Your task to perform on an android device: Play the last video I watched on Youtube Image 0: 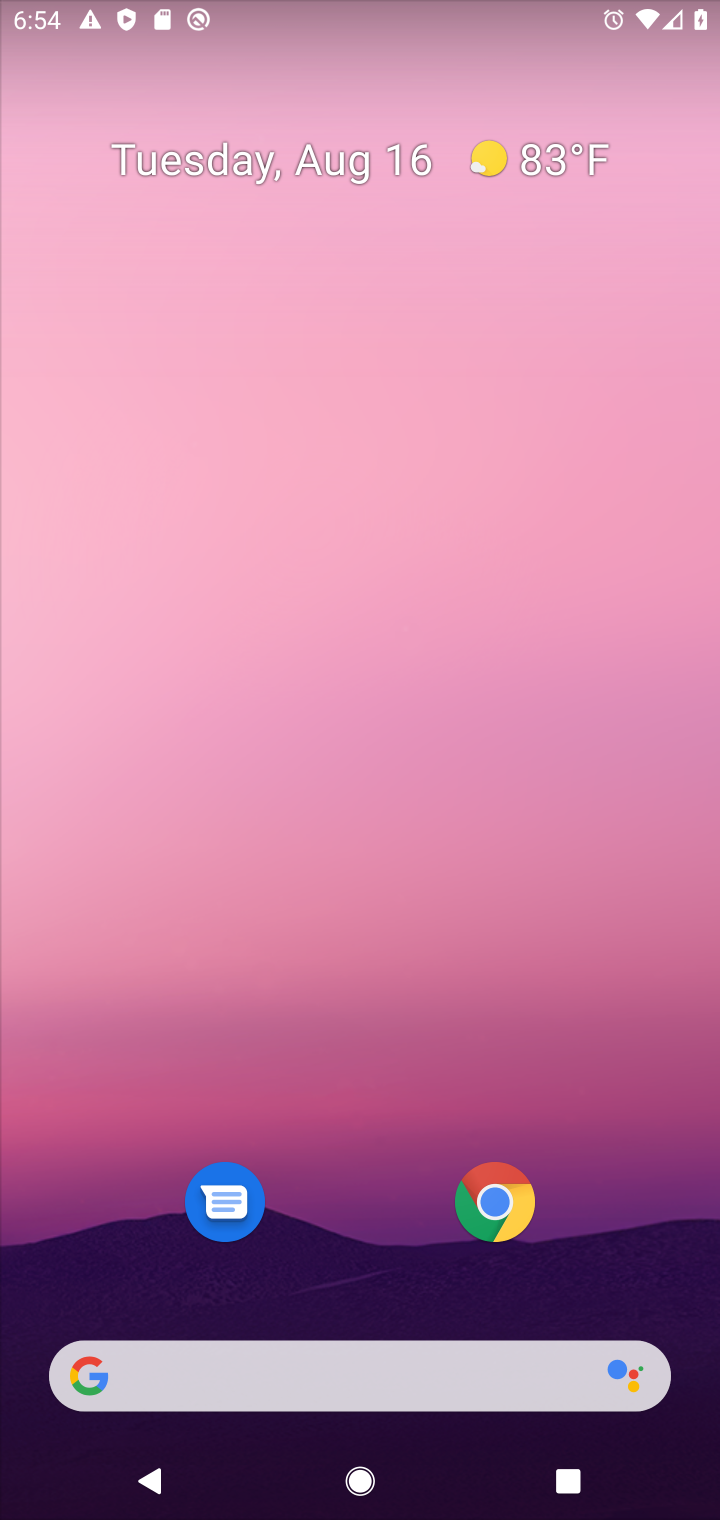
Step 0: drag from (680, 1288) to (250, 7)
Your task to perform on an android device: Play the last video I watched on Youtube Image 1: 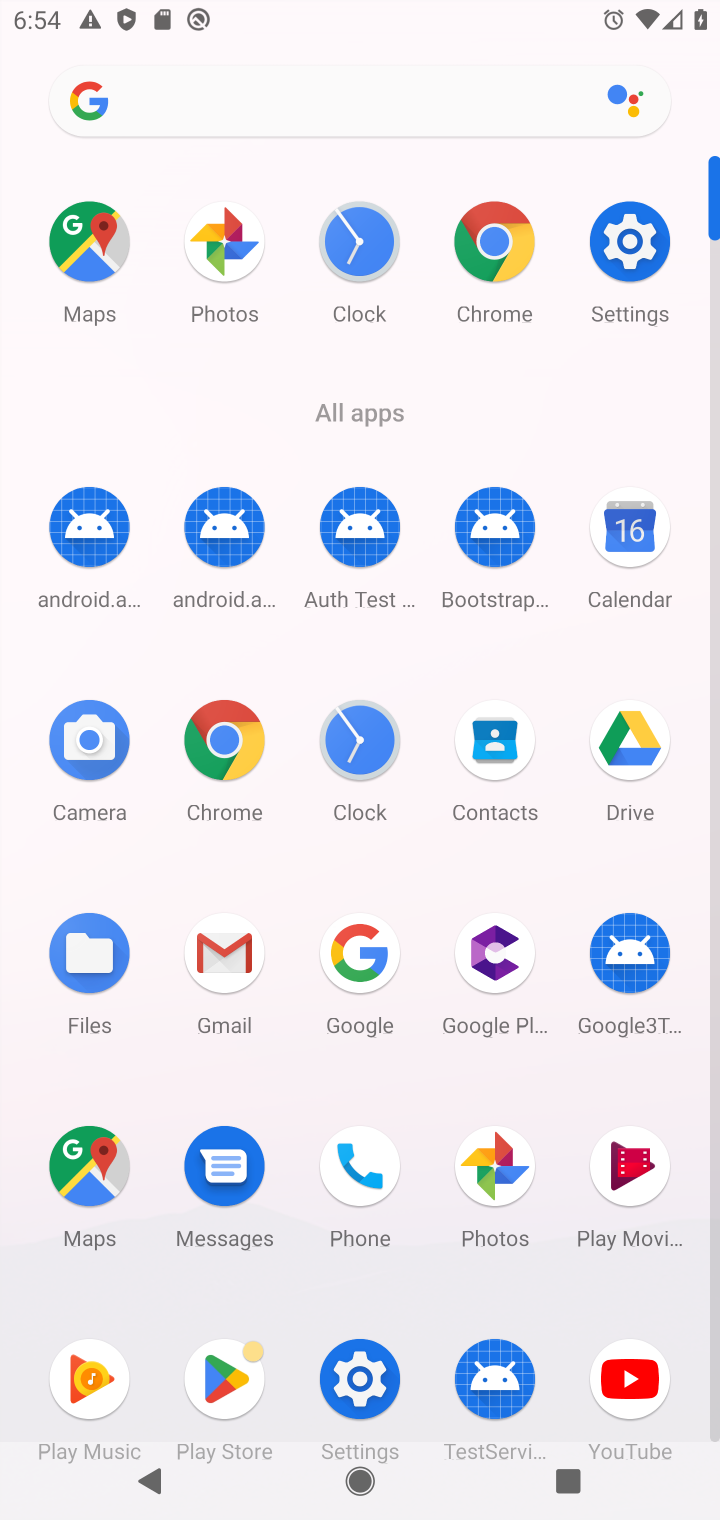
Step 1: click (627, 1374)
Your task to perform on an android device: Play the last video I watched on Youtube Image 2: 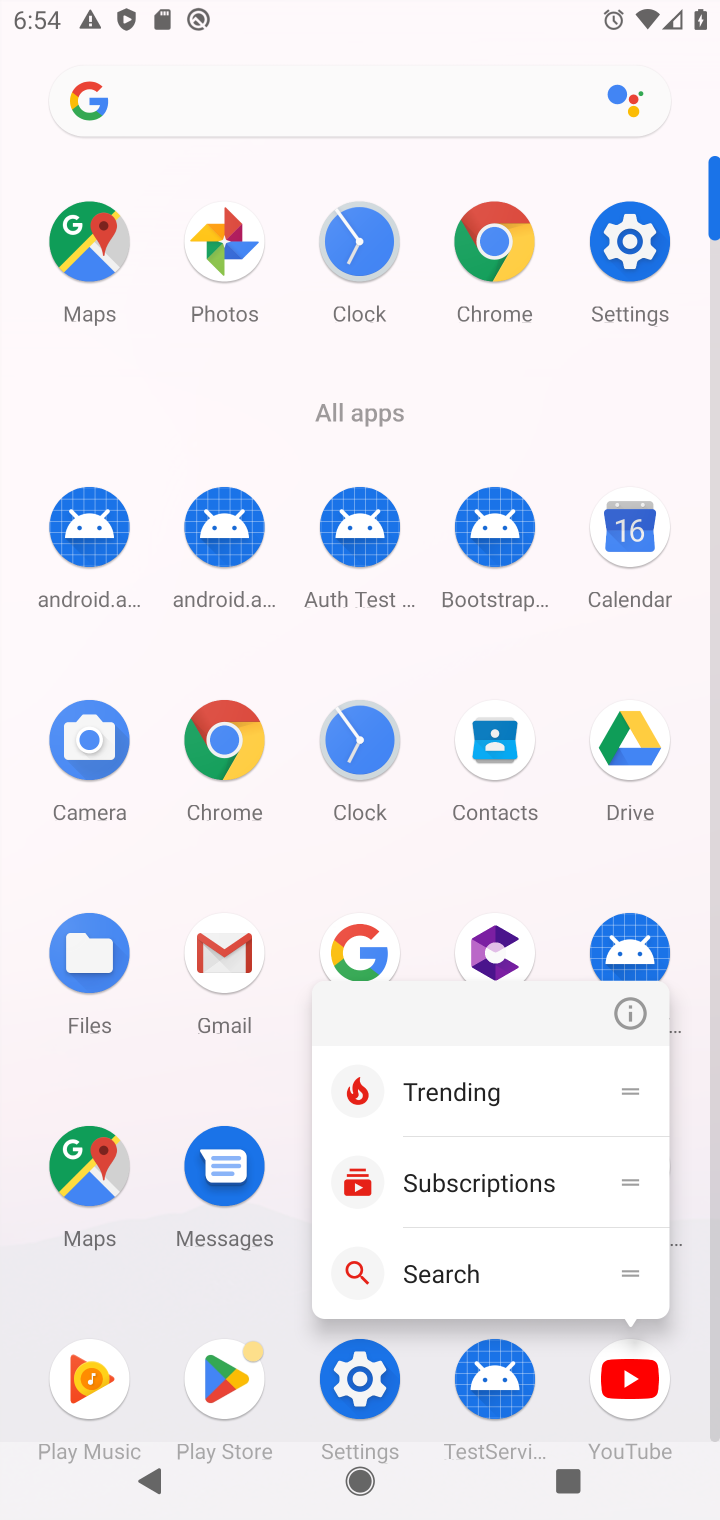
Step 2: click (629, 1372)
Your task to perform on an android device: Play the last video I watched on Youtube Image 3: 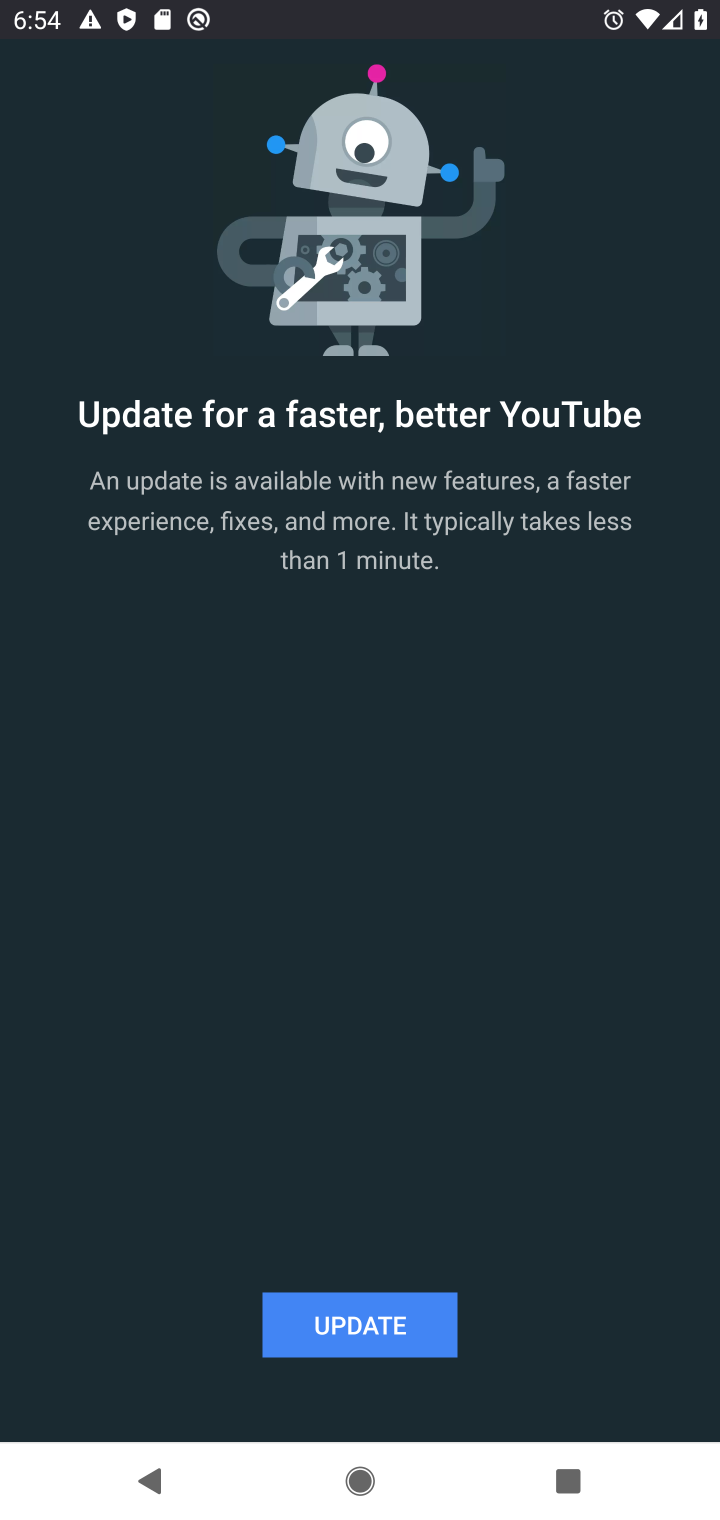
Step 3: task complete